Your task to perform on an android device: Open Youtube and go to the subscriptions tab Image 0: 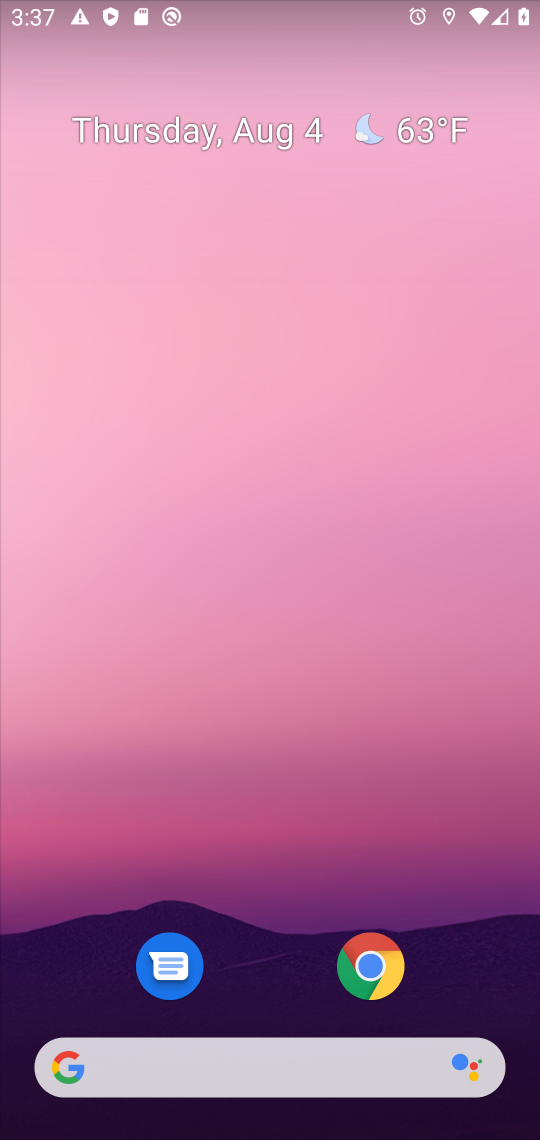
Step 0: press home button
Your task to perform on an android device: Open Youtube and go to the subscriptions tab Image 1: 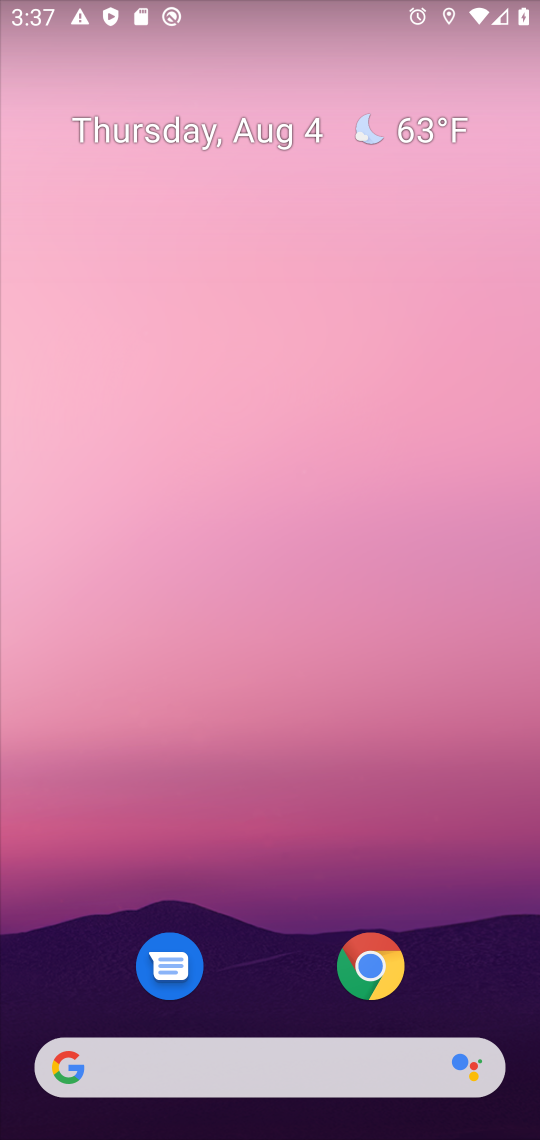
Step 1: drag from (293, 1005) to (258, 146)
Your task to perform on an android device: Open Youtube and go to the subscriptions tab Image 2: 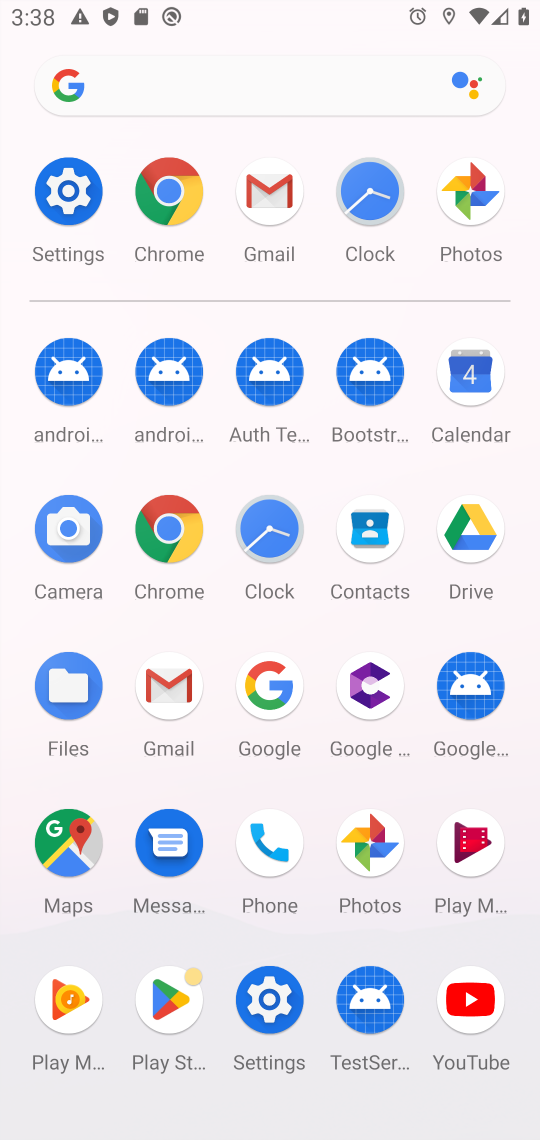
Step 2: click (474, 1018)
Your task to perform on an android device: Open Youtube and go to the subscriptions tab Image 3: 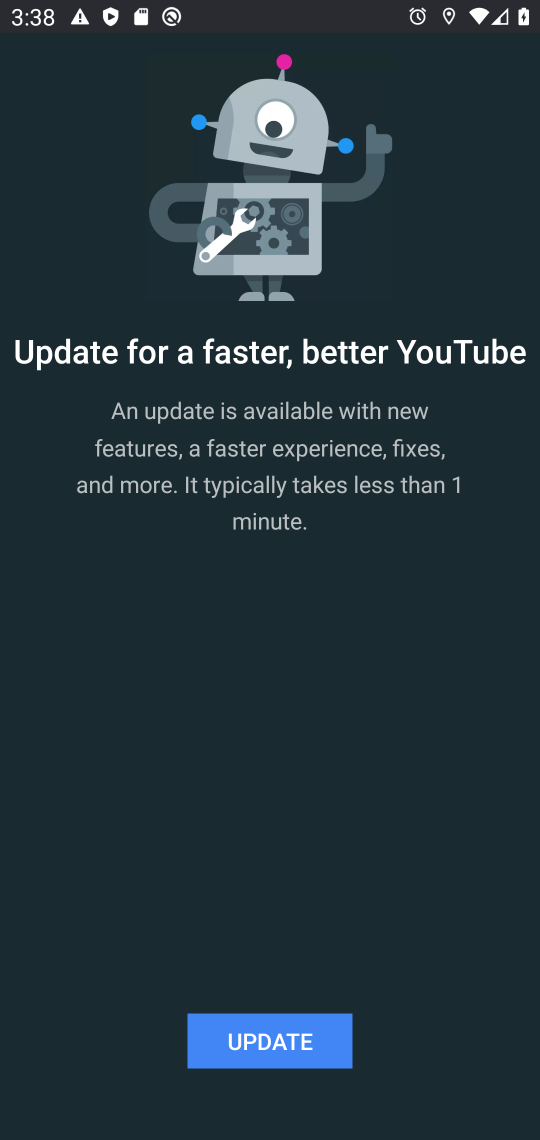
Step 3: click (274, 1034)
Your task to perform on an android device: Open Youtube and go to the subscriptions tab Image 4: 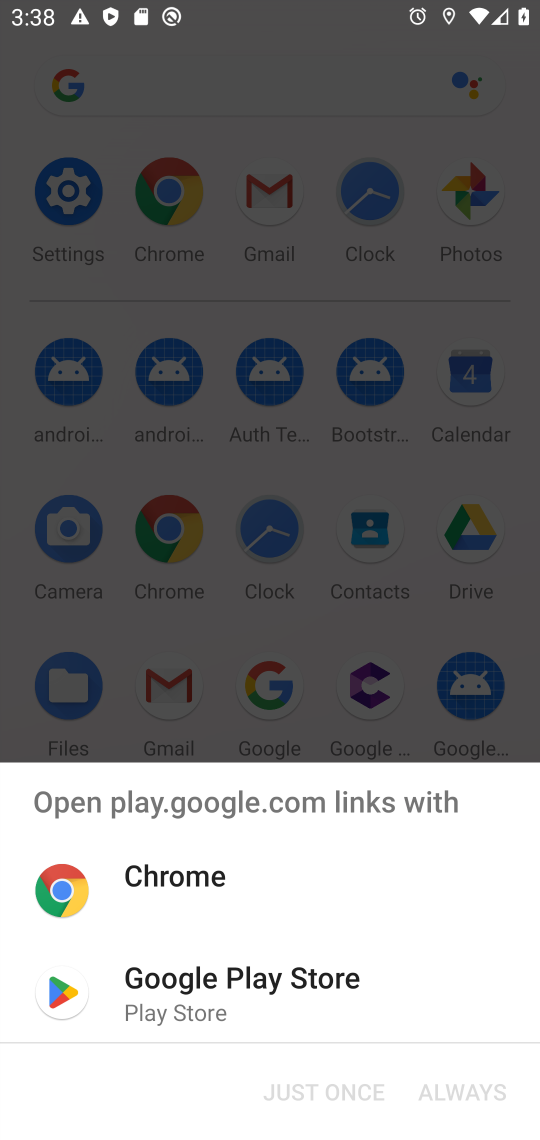
Step 4: click (155, 1007)
Your task to perform on an android device: Open Youtube and go to the subscriptions tab Image 5: 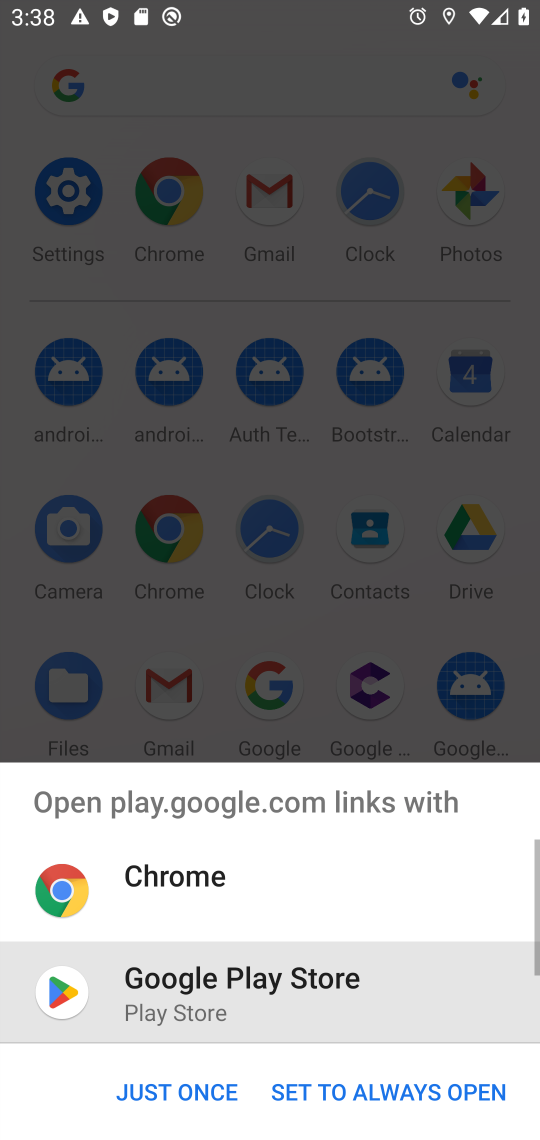
Step 5: click (159, 1093)
Your task to perform on an android device: Open Youtube and go to the subscriptions tab Image 6: 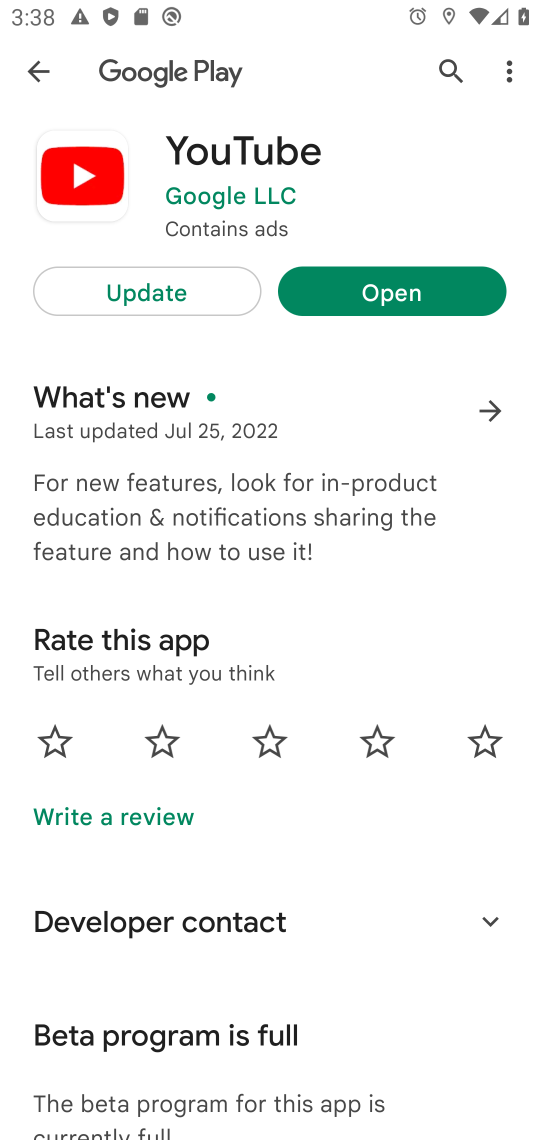
Step 6: click (179, 293)
Your task to perform on an android device: Open Youtube and go to the subscriptions tab Image 7: 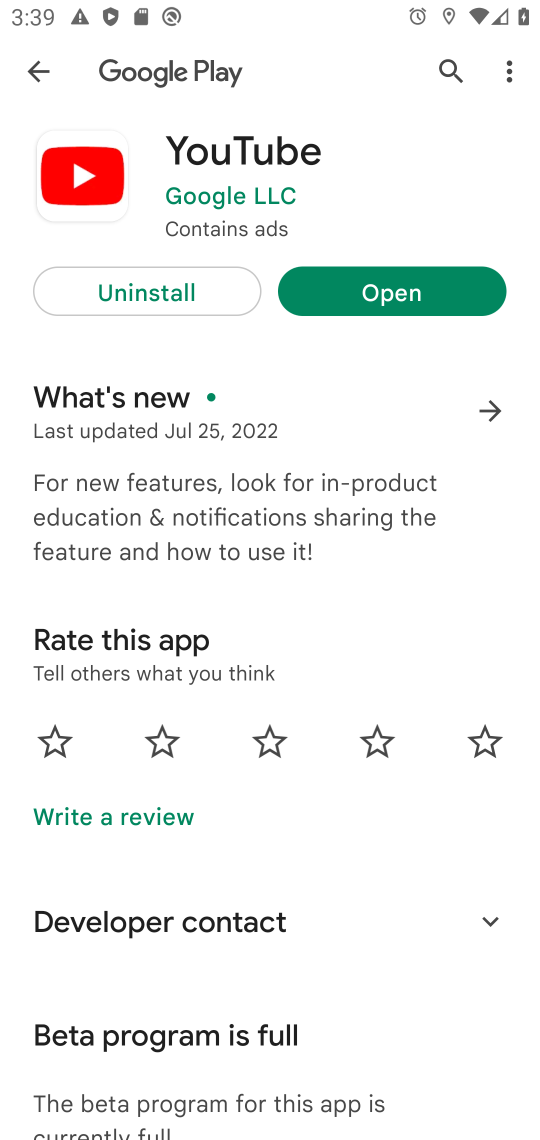
Step 7: click (321, 302)
Your task to perform on an android device: Open Youtube and go to the subscriptions tab Image 8: 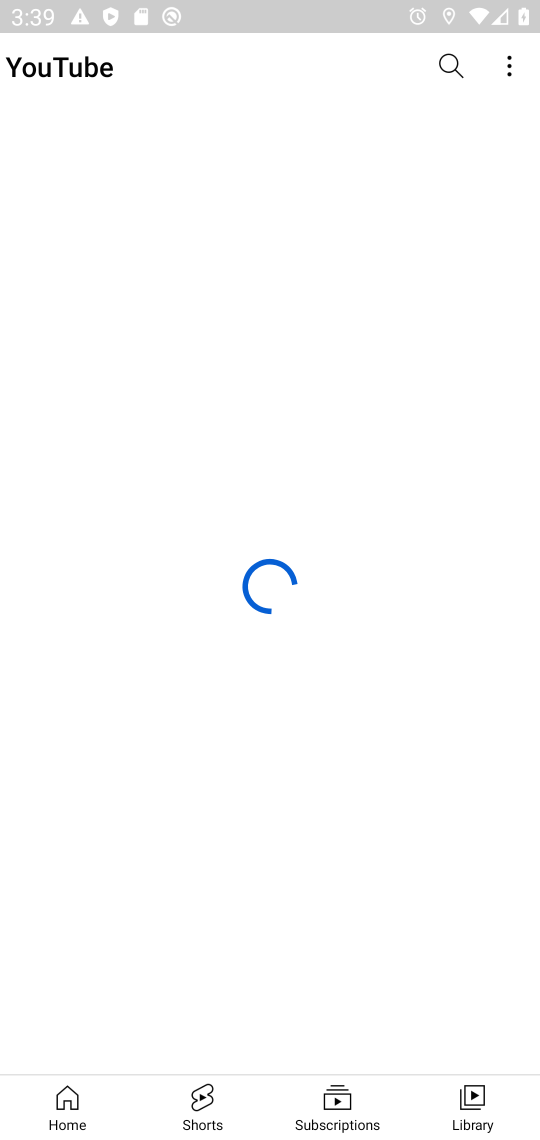
Step 8: click (333, 1098)
Your task to perform on an android device: Open Youtube and go to the subscriptions tab Image 9: 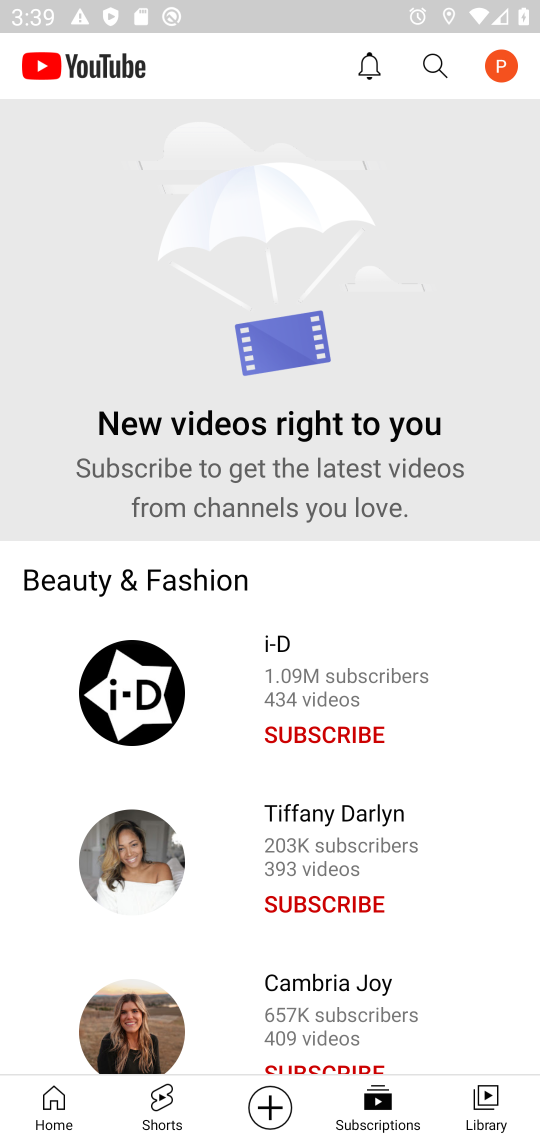
Step 9: task complete